Your task to perform on an android device: Open the calendar app, open the side menu, and click the "Day" option Image 0: 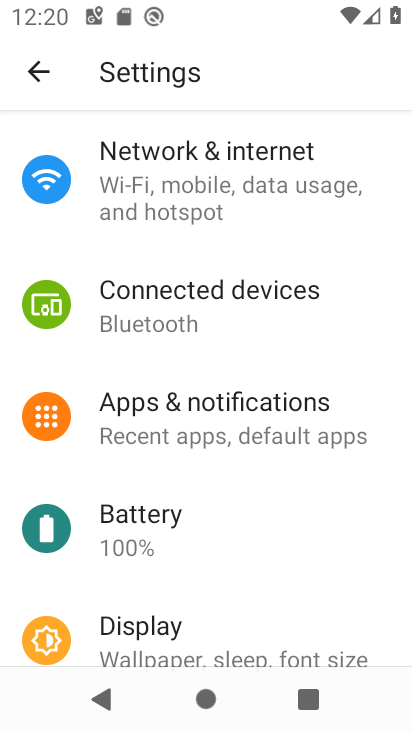
Step 0: press home button
Your task to perform on an android device: Open the calendar app, open the side menu, and click the "Day" option Image 1: 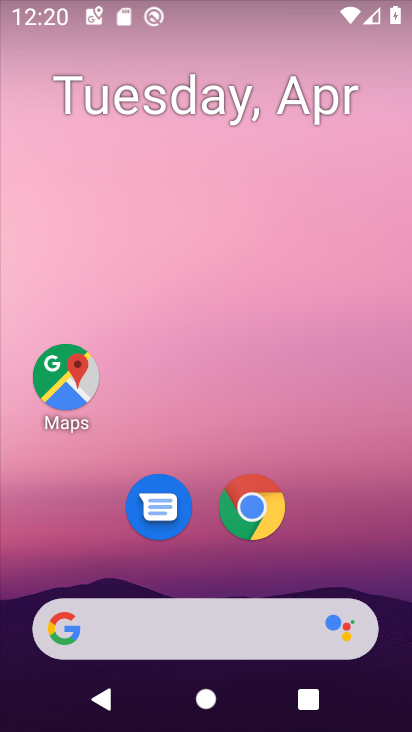
Step 1: drag from (205, 574) to (142, 88)
Your task to perform on an android device: Open the calendar app, open the side menu, and click the "Day" option Image 2: 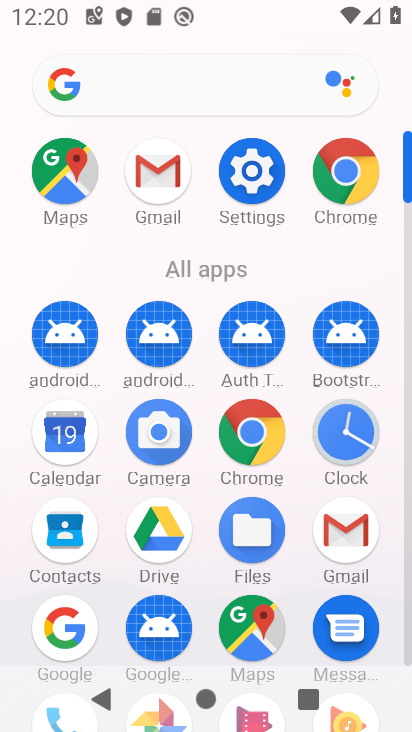
Step 2: click (81, 446)
Your task to perform on an android device: Open the calendar app, open the side menu, and click the "Day" option Image 3: 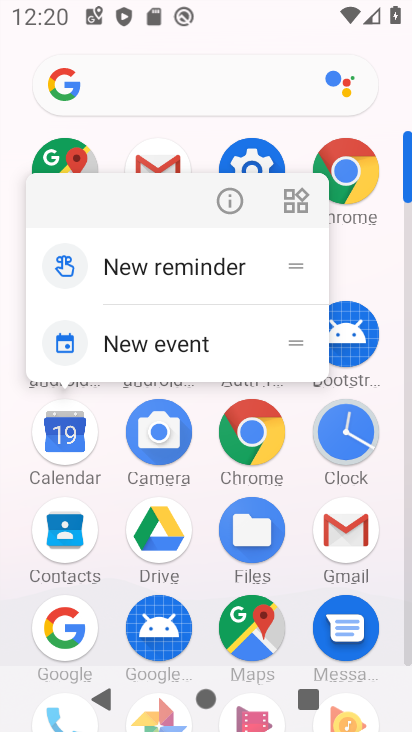
Step 3: click (66, 446)
Your task to perform on an android device: Open the calendar app, open the side menu, and click the "Day" option Image 4: 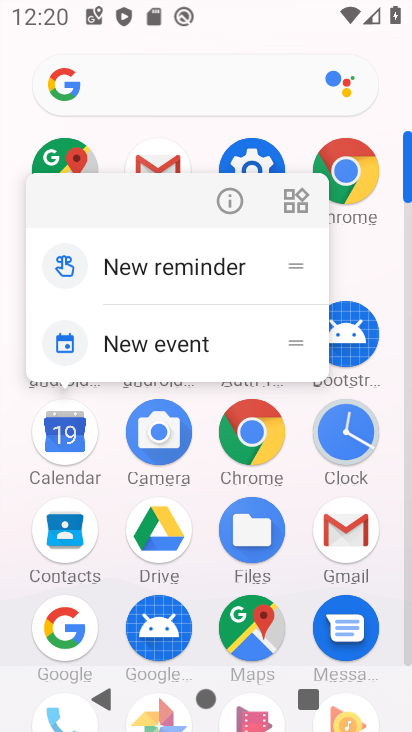
Step 4: click (70, 449)
Your task to perform on an android device: Open the calendar app, open the side menu, and click the "Day" option Image 5: 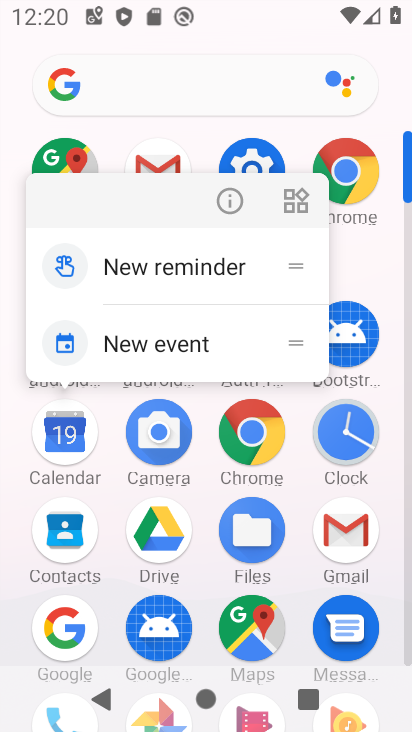
Step 5: click (54, 425)
Your task to perform on an android device: Open the calendar app, open the side menu, and click the "Day" option Image 6: 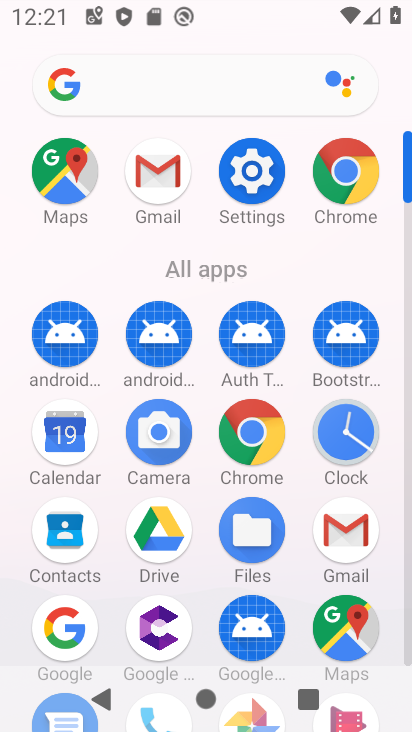
Step 6: click (69, 449)
Your task to perform on an android device: Open the calendar app, open the side menu, and click the "Day" option Image 7: 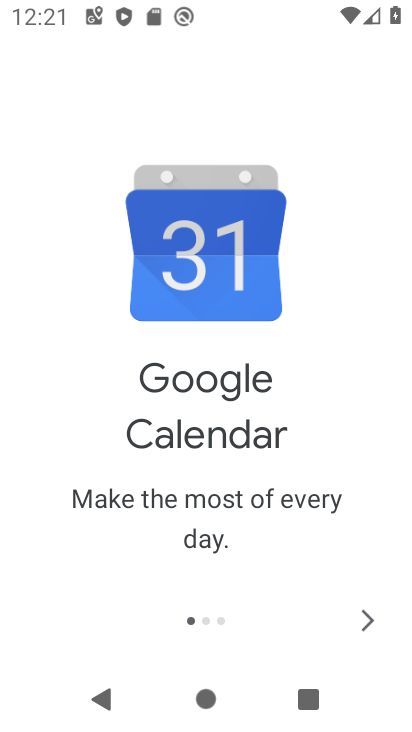
Step 7: click (344, 621)
Your task to perform on an android device: Open the calendar app, open the side menu, and click the "Day" option Image 8: 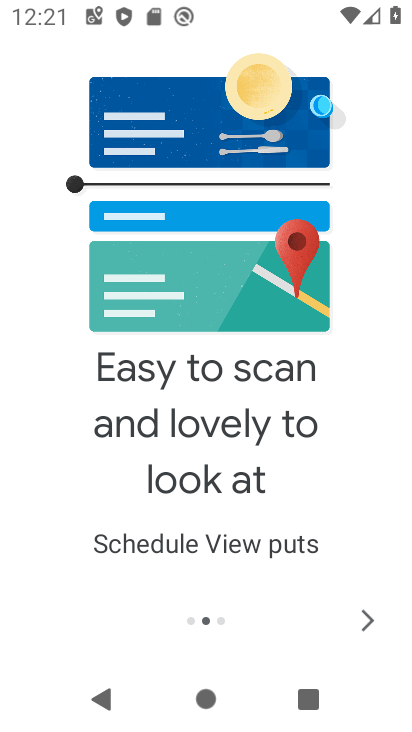
Step 8: click (361, 610)
Your task to perform on an android device: Open the calendar app, open the side menu, and click the "Day" option Image 9: 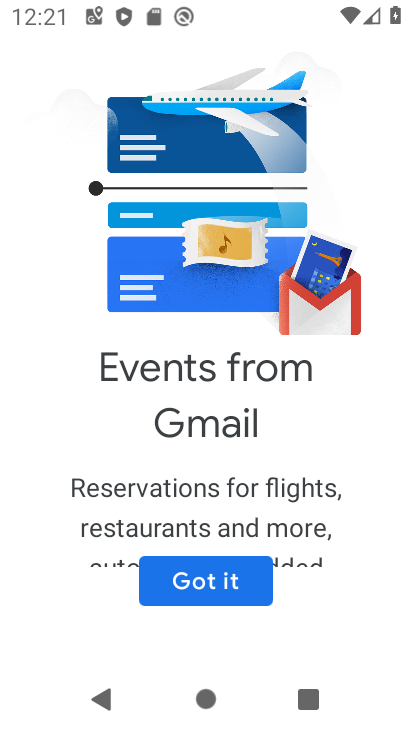
Step 9: click (232, 575)
Your task to perform on an android device: Open the calendar app, open the side menu, and click the "Day" option Image 10: 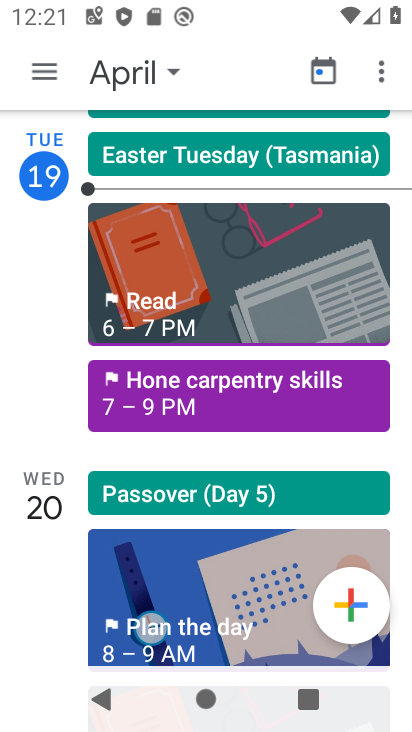
Step 10: click (40, 73)
Your task to perform on an android device: Open the calendar app, open the side menu, and click the "Day" option Image 11: 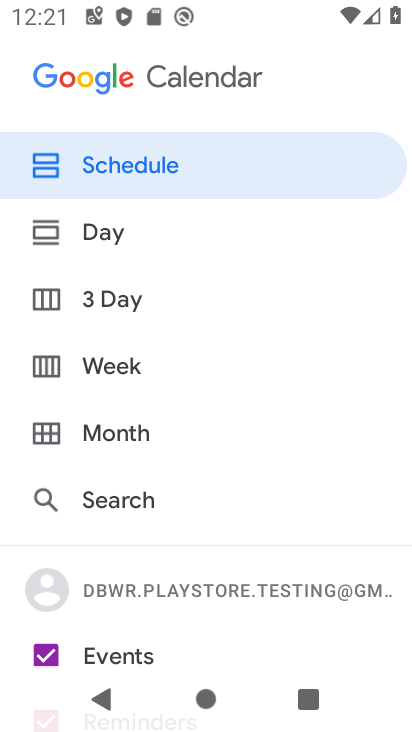
Step 11: click (125, 242)
Your task to perform on an android device: Open the calendar app, open the side menu, and click the "Day" option Image 12: 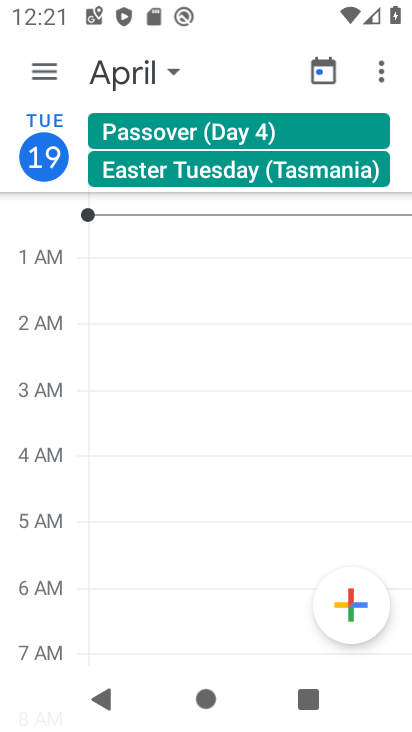
Step 12: task complete